Your task to perform on an android device: empty trash in google photos Image 0: 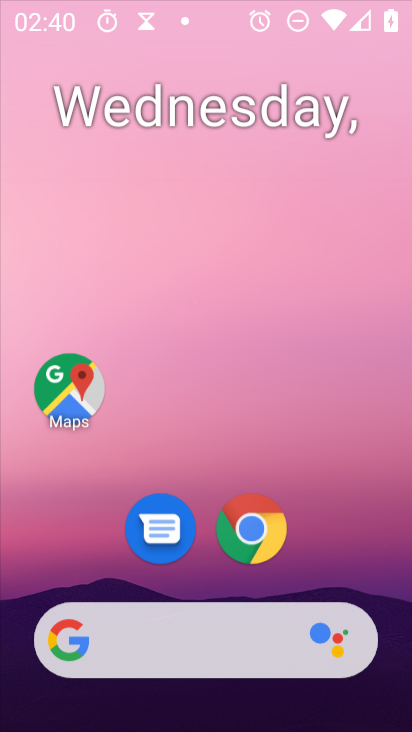
Step 0: click (203, 31)
Your task to perform on an android device: empty trash in google photos Image 1: 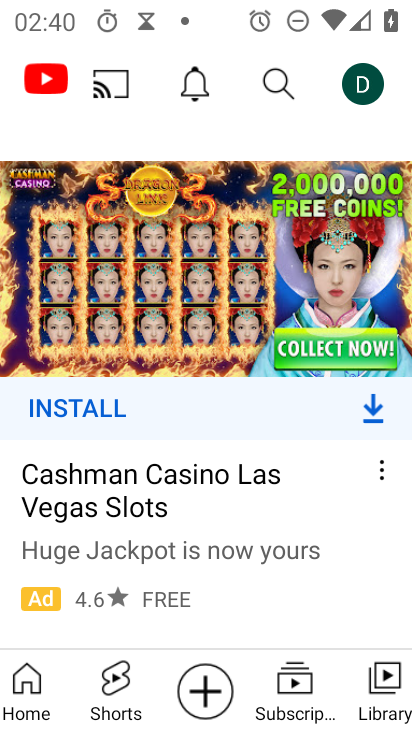
Step 1: press home button
Your task to perform on an android device: empty trash in google photos Image 2: 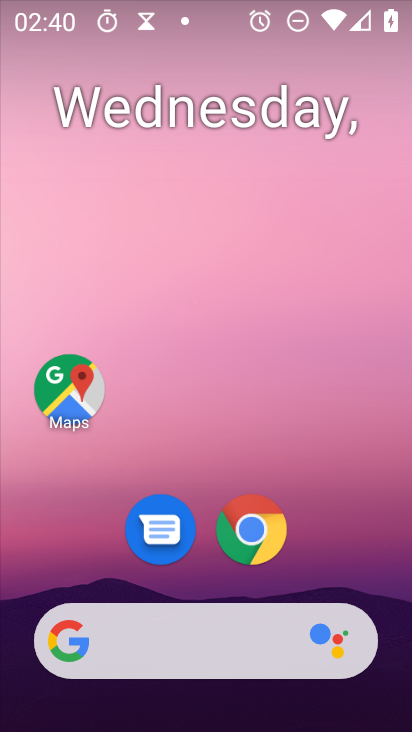
Step 2: drag from (224, 632) to (275, 147)
Your task to perform on an android device: empty trash in google photos Image 3: 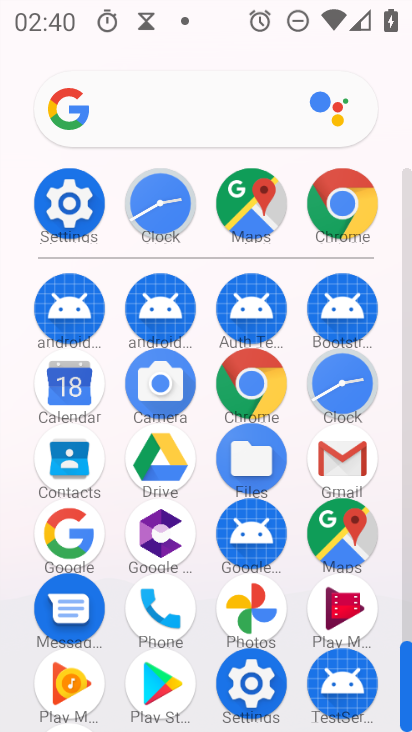
Step 3: click (261, 618)
Your task to perform on an android device: empty trash in google photos Image 4: 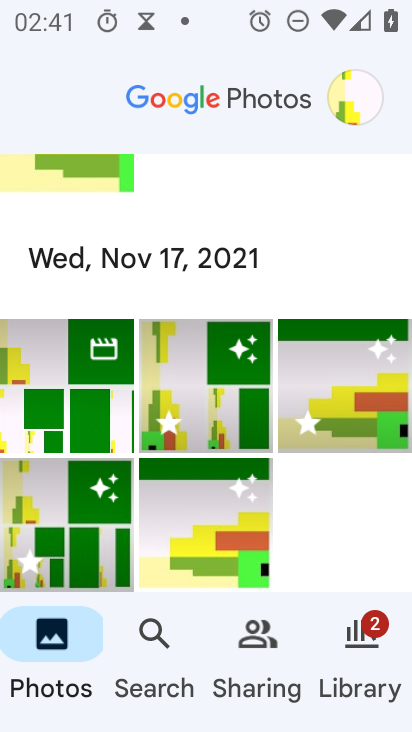
Step 4: click (362, 654)
Your task to perform on an android device: empty trash in google photos Image 5: 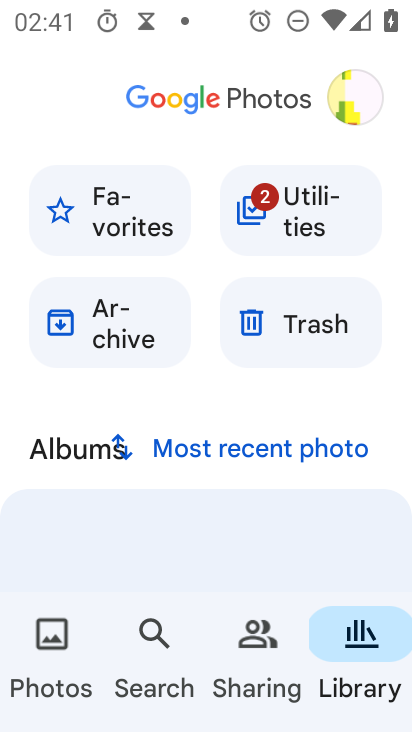
Step 5: click (274, 309)
Your task to perform on an android device: empty trash in google photos Image 6: 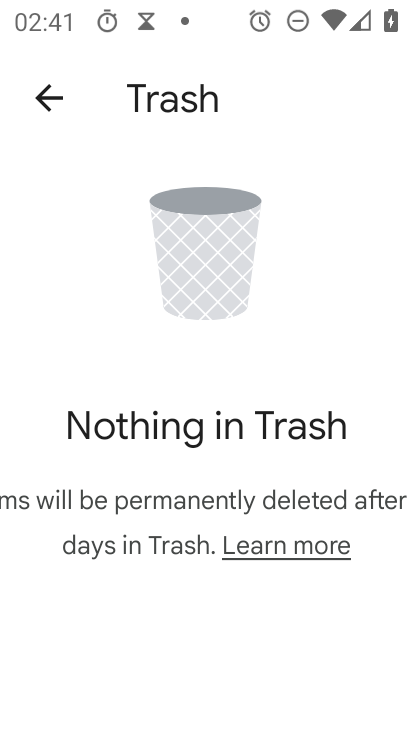
Step 6: task complete